Your task to perform on an android device: turn on location history Image 0: 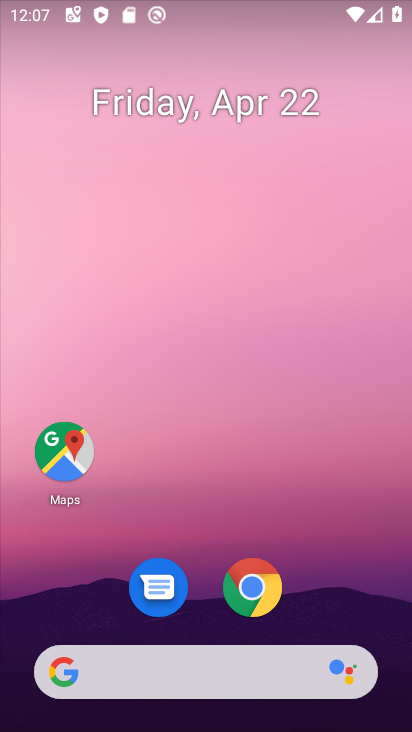
Step 0: press back button
Your task to perform on an android device: turn on location history Image 1: 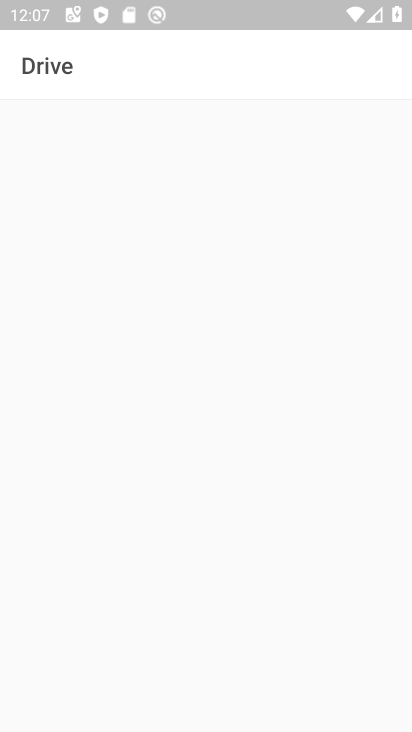
Step 1: press back button
Your task to perform on an android device: turn on location history Image 2: 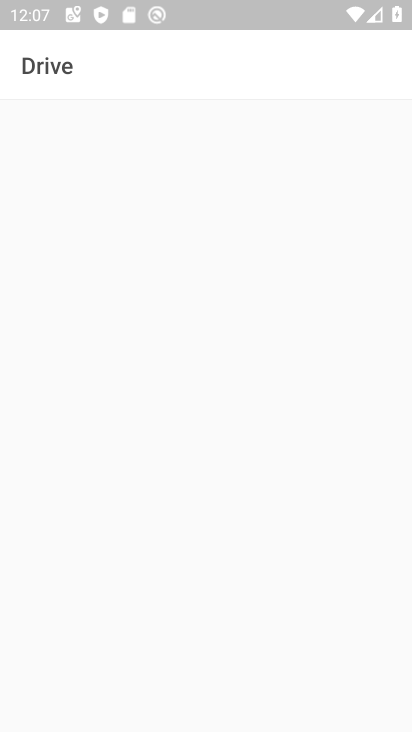
Step 2: press back button
Your task to perform on an android device: turn on location history Image 3: 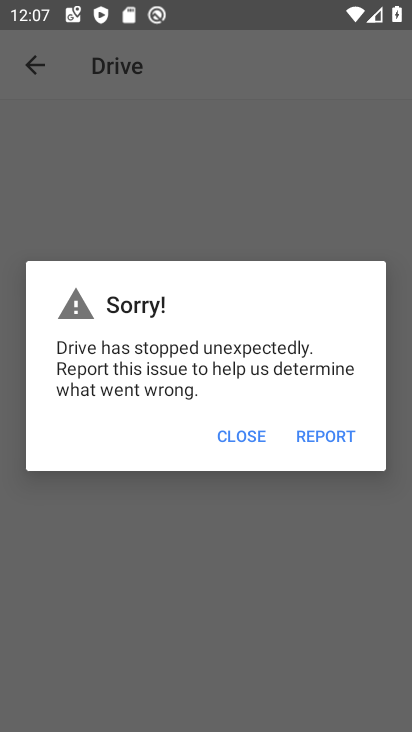
Step 3: press back button
Your task to perform on an android device: turn on location history Image 4: 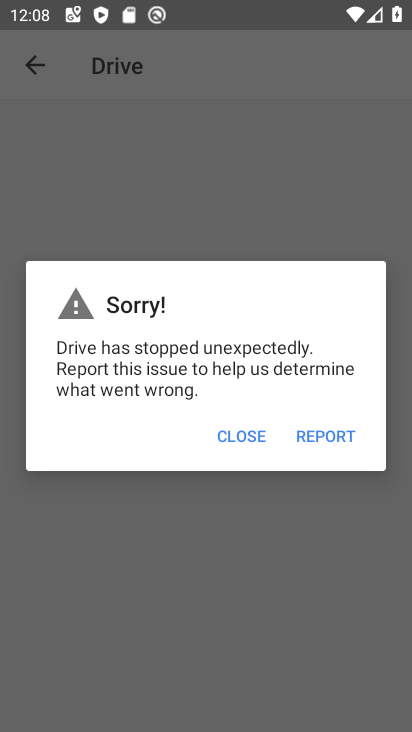
Step 4: press back button
Your task to perform on an android device: turn on location history Image 5: 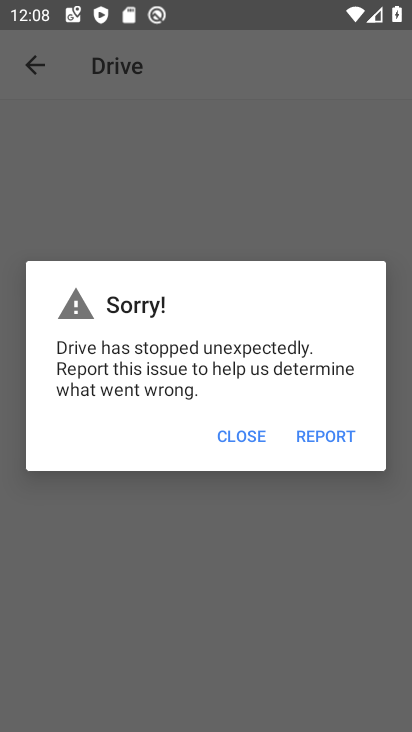
Step 5: click (248, 440)
Your task to perform on an android device: turn on location history Image 6: 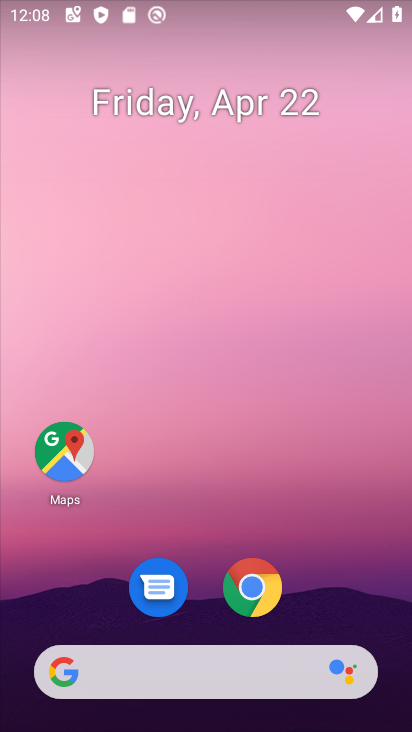
Step 6: drag from (199, 532) to (240, 103)
Your task to perform on an android device: turn on location history Image 7: 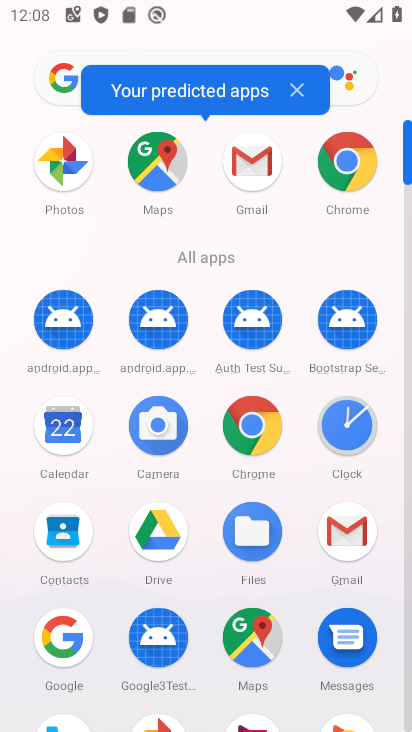
Step 7: drag from (175, 650) to (236, 337)
Your task to perform on an android device: turn on location history Image 8: 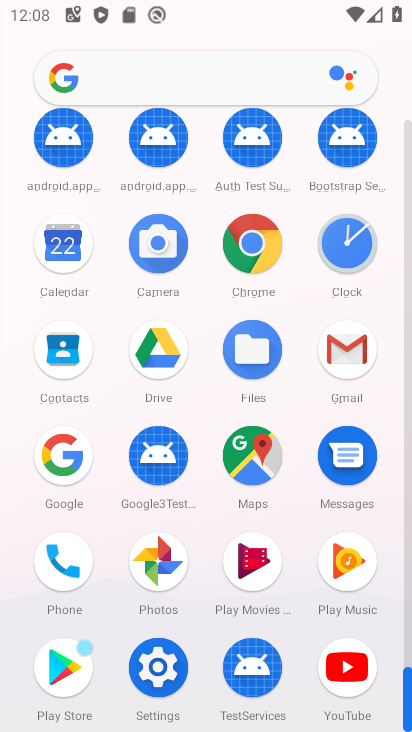
Step 8: click (163, 679)
Your task to perform on an android device: turn on location history Image 9: 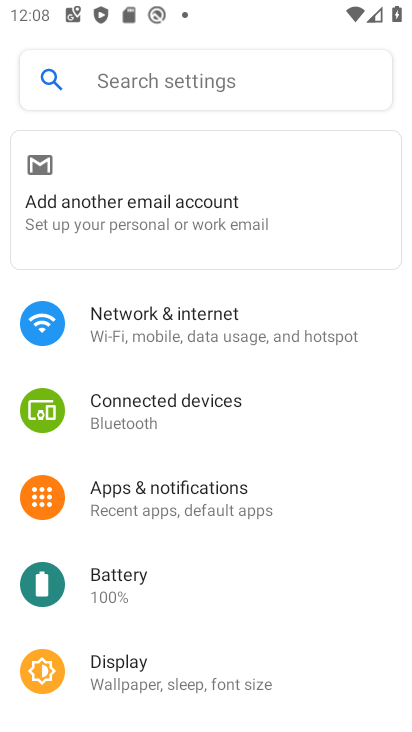
Step 9: drag from (187, 608) to (269, 206)
Your task to perform on an android device: turn on location history Image 10: 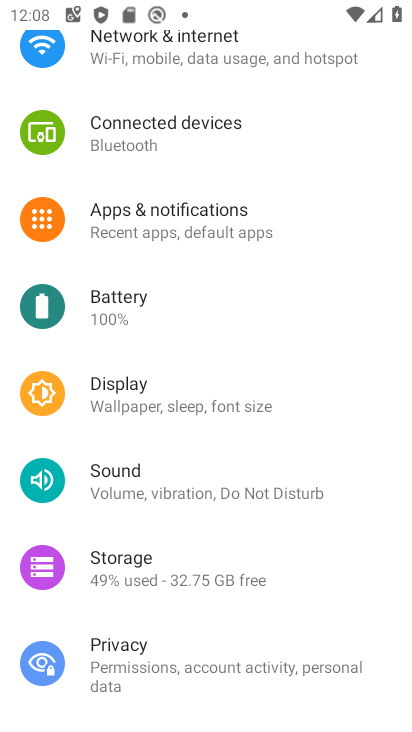
Step 10: drag from (197, 656) to (262, 267)
Your task to perform on an android device: turn on location history Image 11: 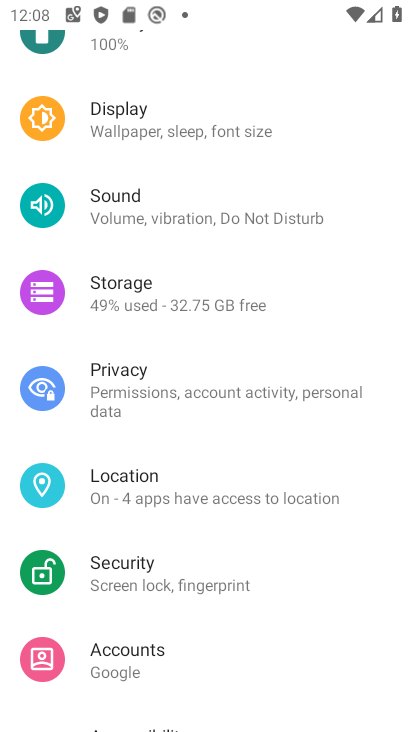
Step 11: click (195, 485)
Your task to perform on an android device: turn on location history Image 12: 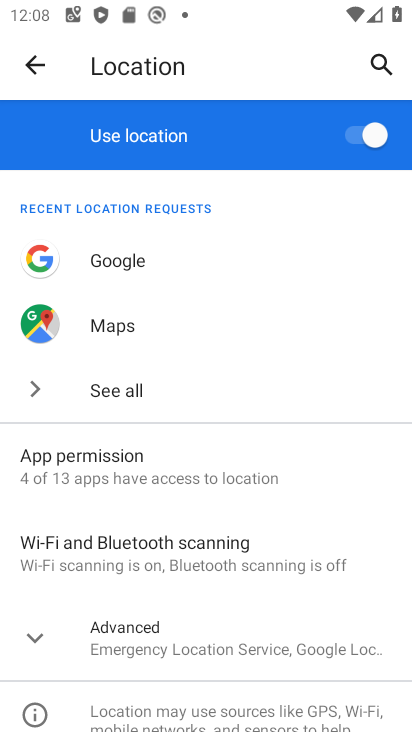
Step 12: click (189, 631)
Your task to perform on an android device: turn on location history Image 13: 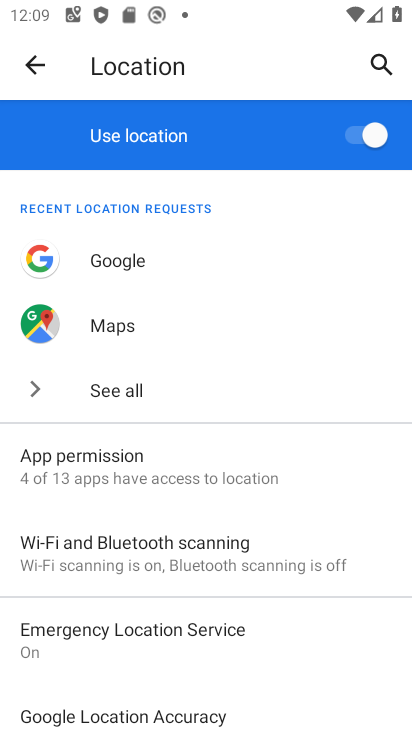
Step 13: drag from (231, 649) to (312, 311)
Your task to perform on an android device: turn on location history Image 14: 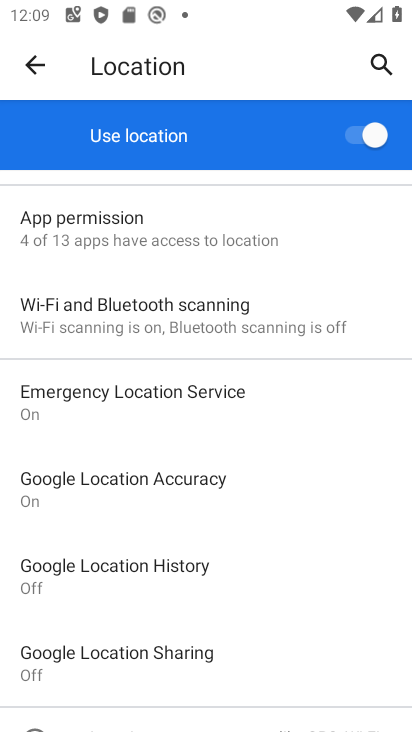
Step 14: click (174, 581)
Your task to perform on an android device: turn on location history Image 15: 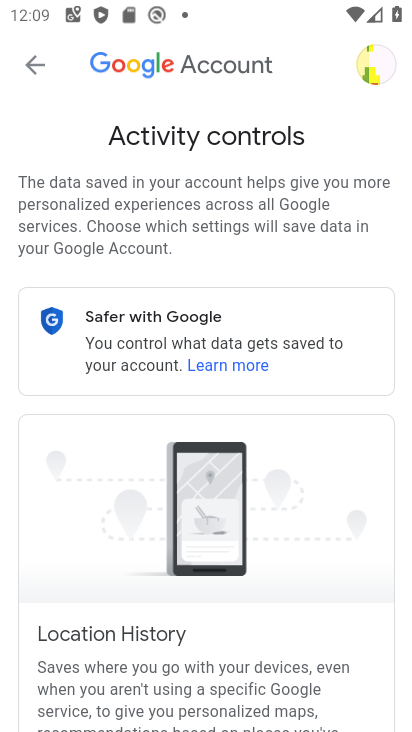
Step 15: drag from (206, 658) to (307, 278)
Your task to perform on an android device: turn on location history Image 16: 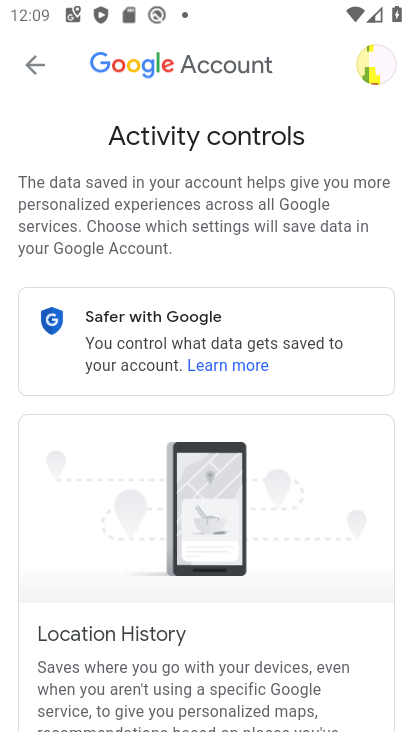
Step 16: drag from (232, 651) to (334, 232)
Your task to perform on an android device: turn on location history Image 17: 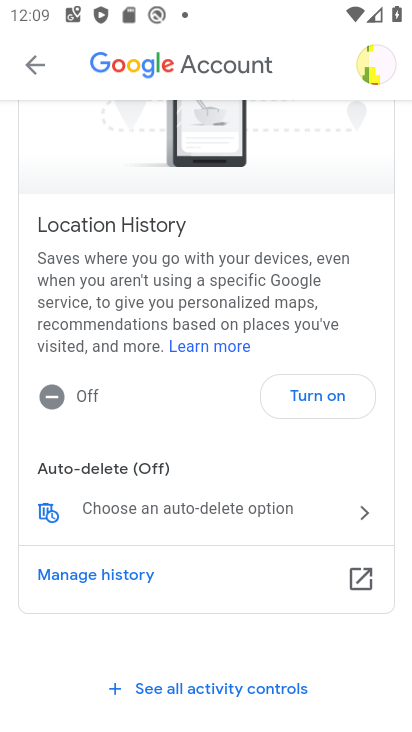
Step 17: click (325, 393)
Your task to perform on an android device: turn on location history Image 18: 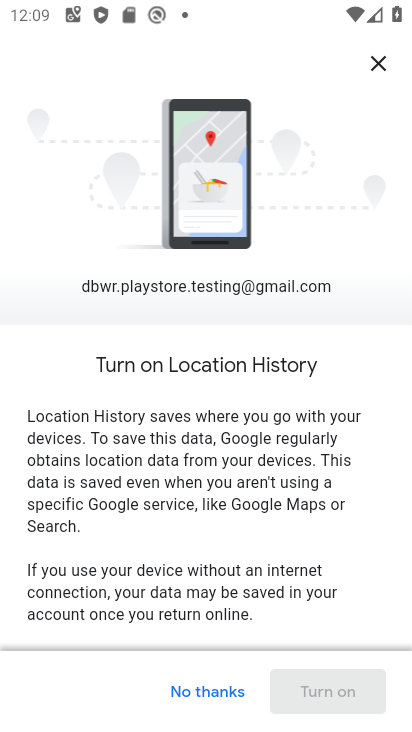
Step 18: drag from (152, 603) to (344, 116)
Your task to perform on an android device: turn on location history Image 19: 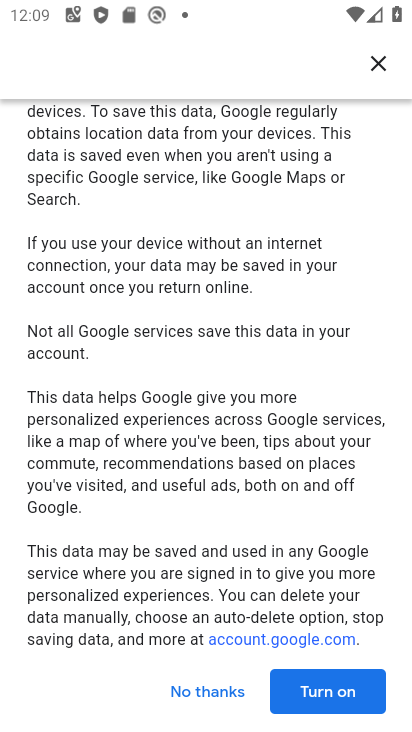
Step 19: click (377, 701)
Your task to perform on an android device: turn on location history Image 20: 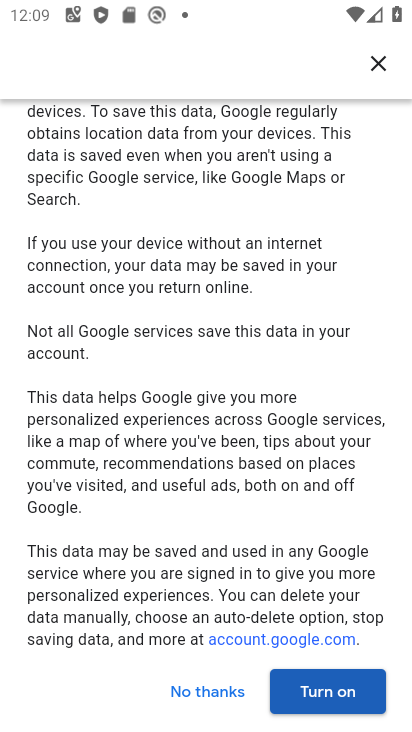
Step 20: click (342, 696)
Your task to perform on an android device: turn on location history Image 21: 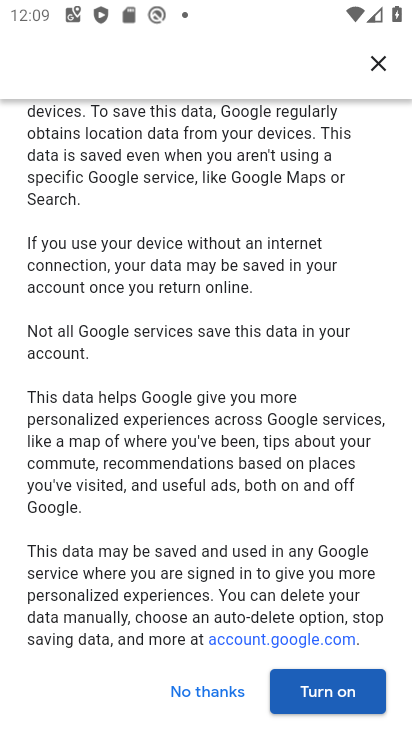
Step 21: click (349, 701)
Your task to perform on an android device: turn on location history Image 22: 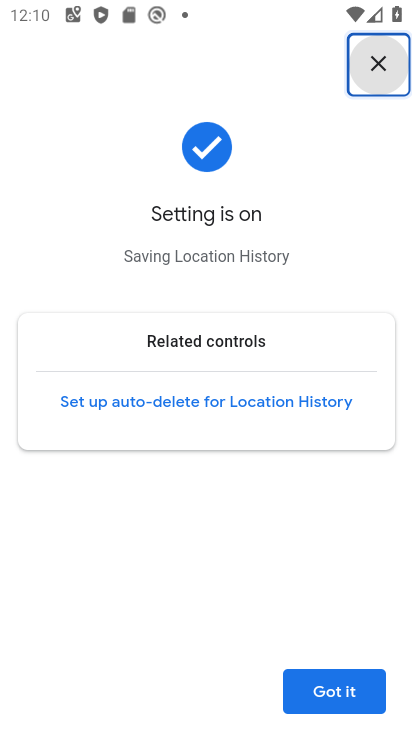
Step 22: click (342, 692)
Your task to perform on an android device: turn on location history Image 23: 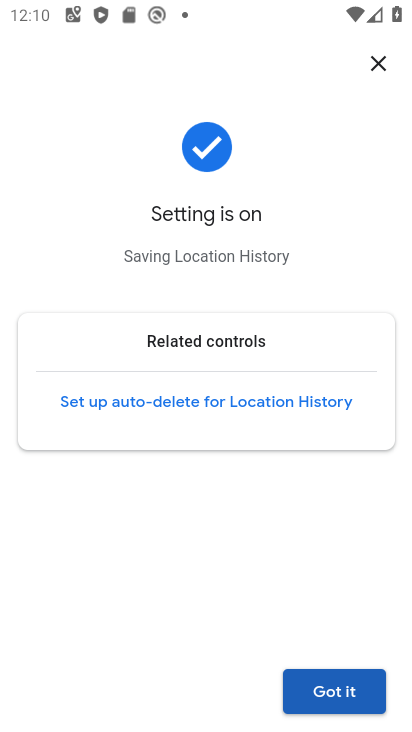
Step 23: click (339, 704)
Your task to perform on an android device: turn on location history Image 24: 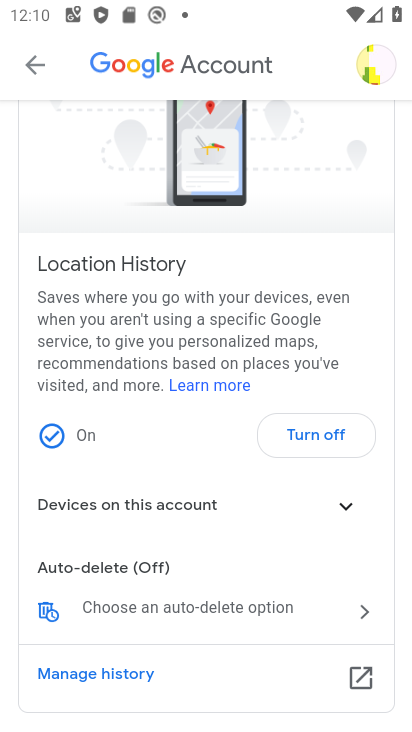
Step 24: click (323, 718)
Your task to perform on an android device: turn on location history Image 25: 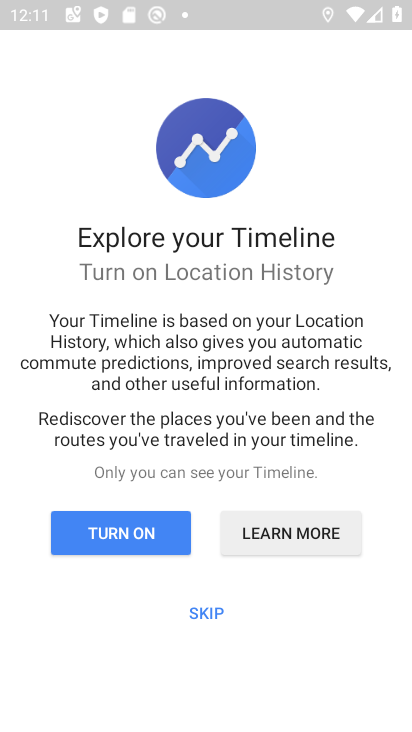
Step 25: click (213, 609)
Your task to perform on an android device: turn on location history Image 26: 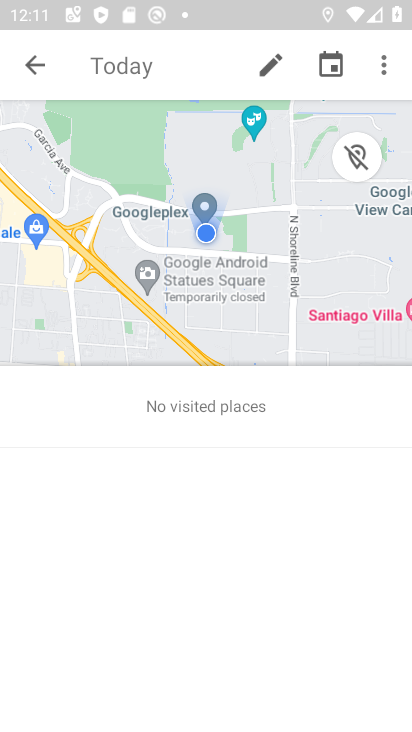
Step 26: task complete